Your task to perform on an android device: turn on data saver in the chrome app Image 0: 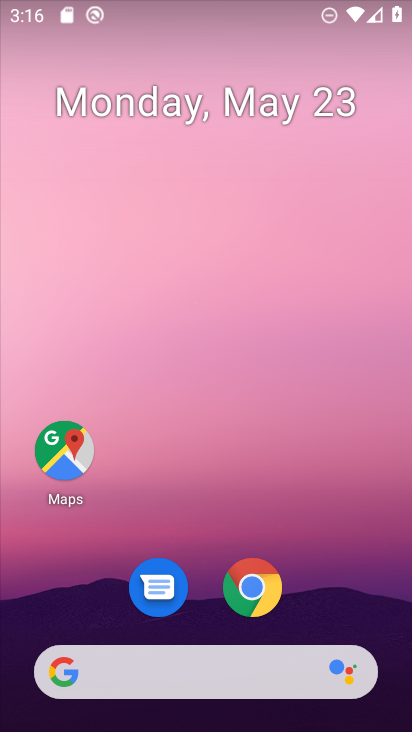
Step 0: drag from (196, 583) to (260, 86)
Your task to perform on an android device: turn on data saver in the chrome app Image 1: 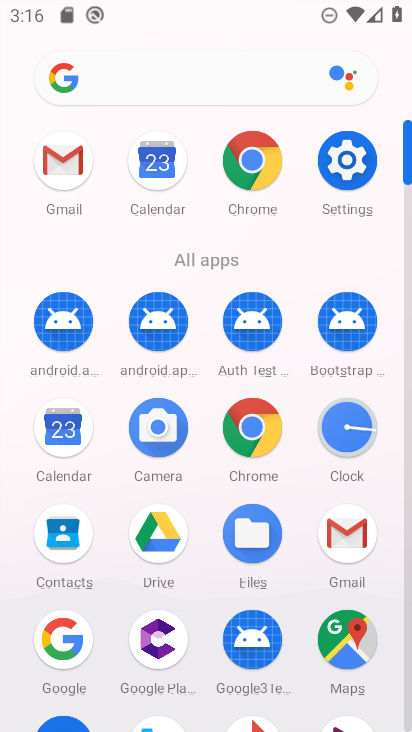
Step 1: click (243, 438)
Your task to perform on an android device: turn on data saver in the chrome app Image 2: 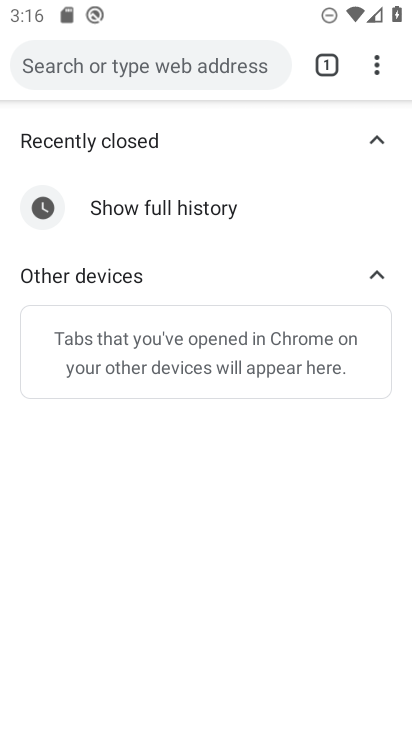
Step 2: click (383, 56)
Your task to perform on an android device: turn on data saver in the chrome app Image 3: 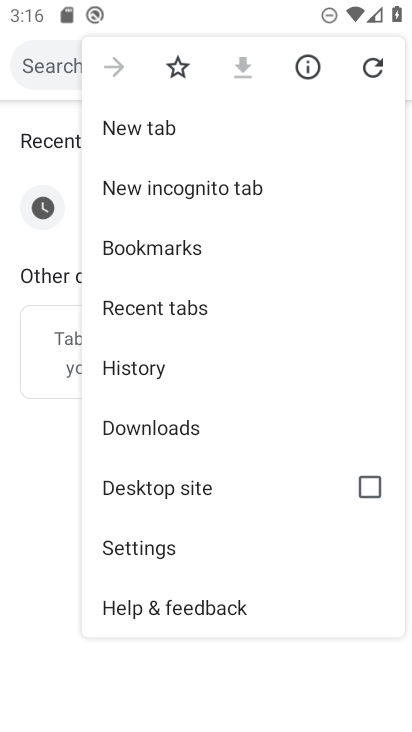
Step 3: click (164, 565)
Your task to perform on an android device: turn on data saver in the chrome app Image 4: 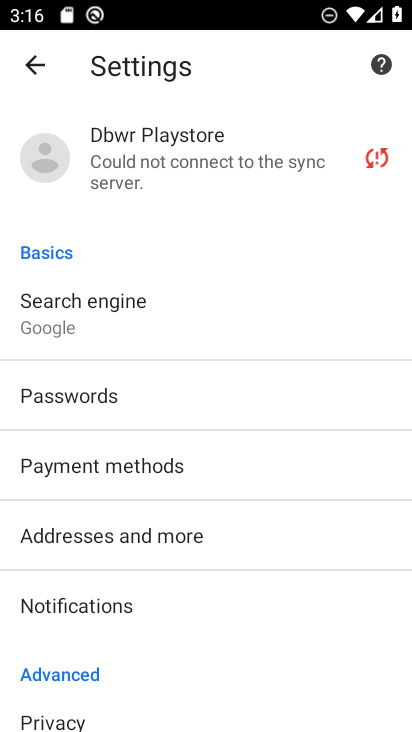
Step 4: drag from (123, 584) to (209, 247)
Your task to perform on an android device: turn on data saver in the chrome app Image 5: 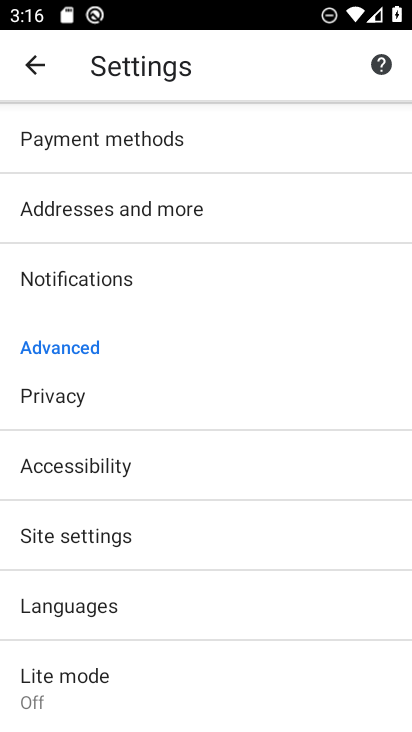
Step 5: click (108, 675)
Your task to perform on an android device: turn on data saver in the chrome app Image 6: 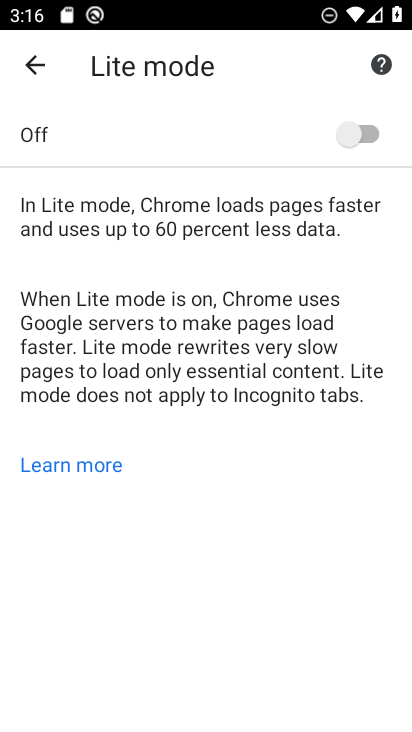
Step 6: click (375, 113)
Your task to perform on an android device: turn on data saver in the chrome app Image 7: 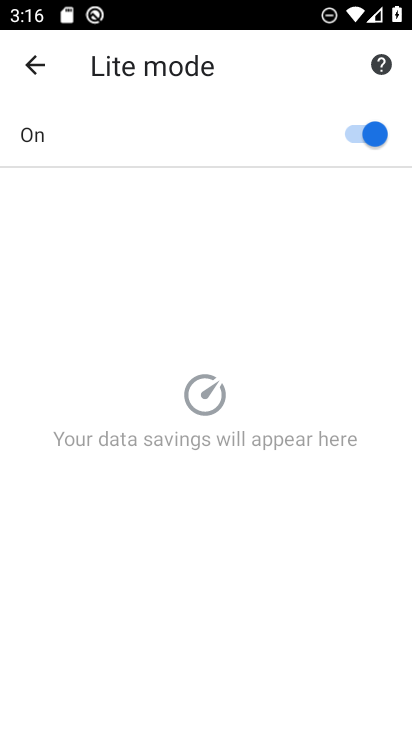
Step 7: task complete